Your task to perform on an android device: find which apps use the phone's location Image 0: 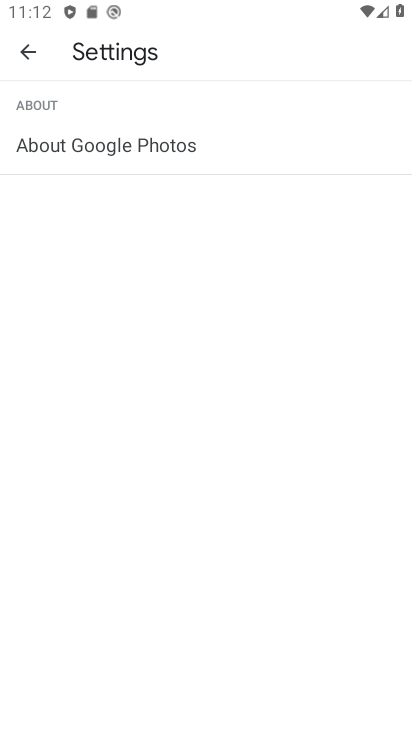
Step 0: press back button
Your task to perform on an android device: find which apps use the phone's location Image 1: 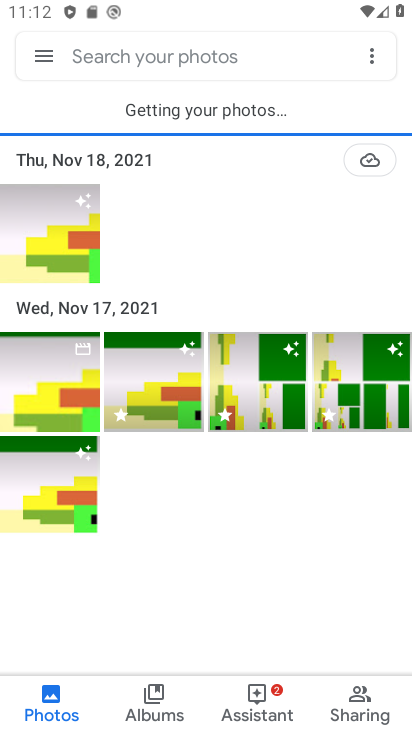
Step 1: press home button
Your task to perform on an android device: find which apps use the phone's location Image 2: 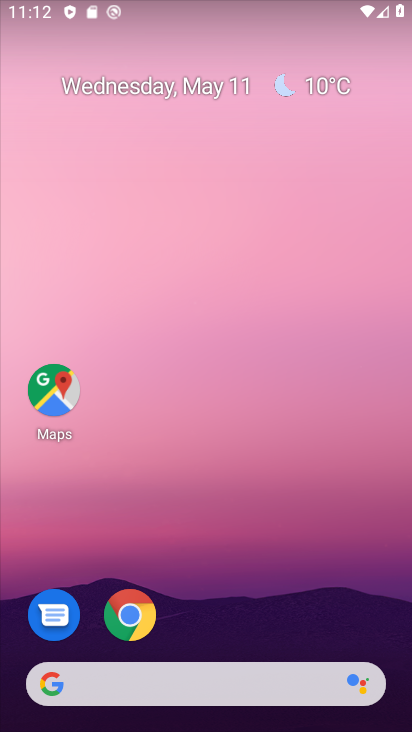
Step 2: drag from (157, 645) to (275, 238)
Your task to perform on an android device: find which apps use the phone's location Image 3: 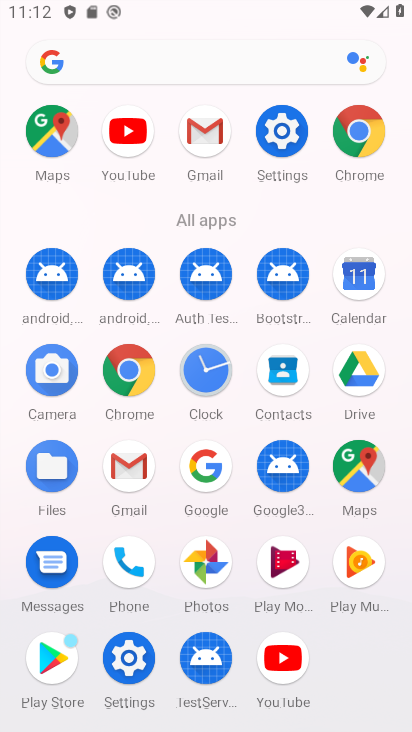
Step 3: click (110, 661)
Your task to perform on an android device: find which apps use the phone's location Image 4: 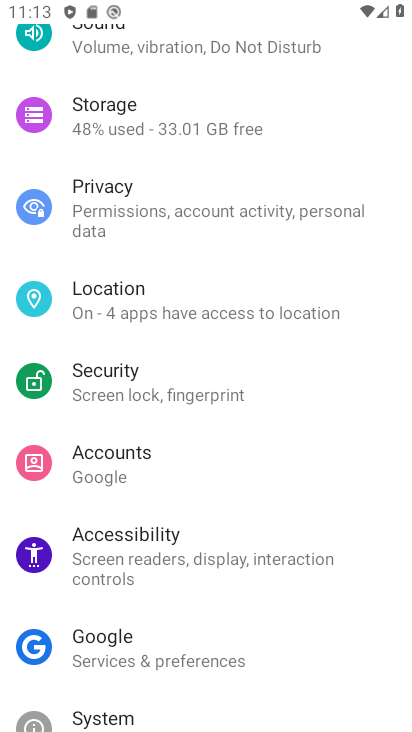
Step 4: click (168, 302)
Your task to perform on an android device: find which apps use the phone's location Image 5: 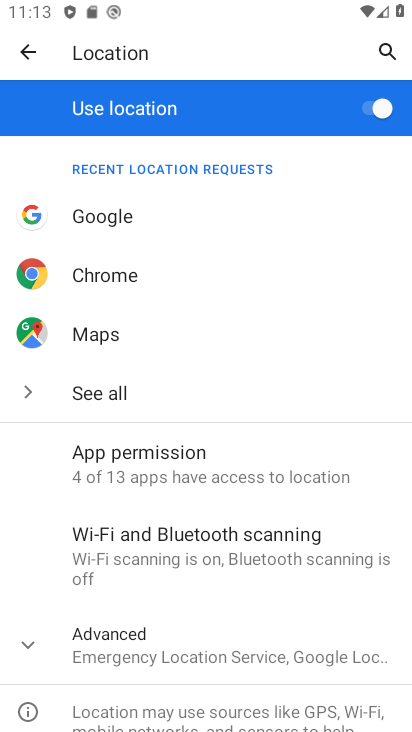
Step 5: click (165, 457)
Your task to perform on an android device: find which apps use the phone's location Image 6: 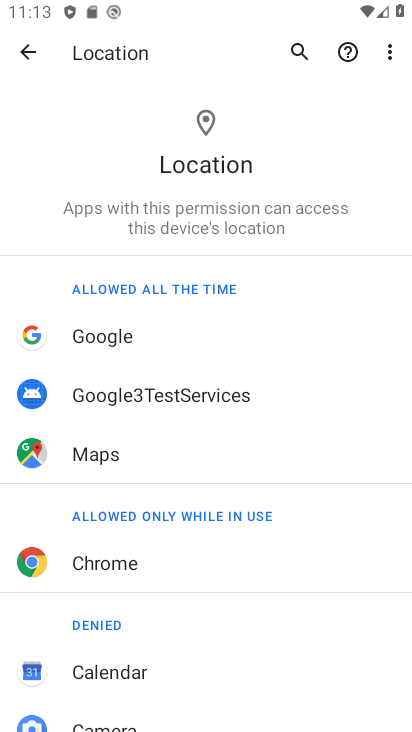
Step 6: task complete